Your task to perform on an android device: Open notification settings Image 0: 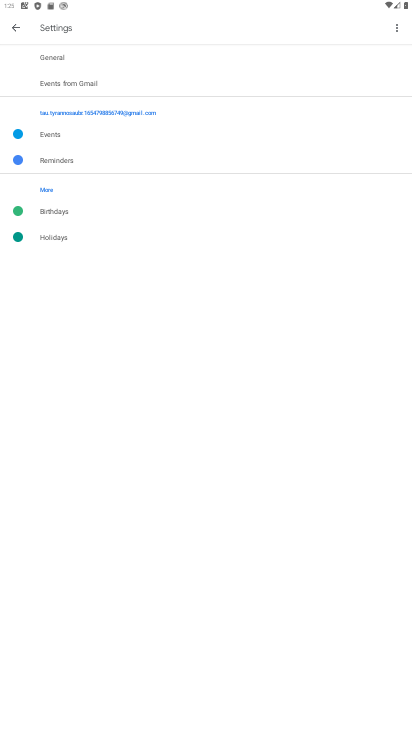
Step 0: press home button
Your task to perform on an android device: Open notification settings Image 1: 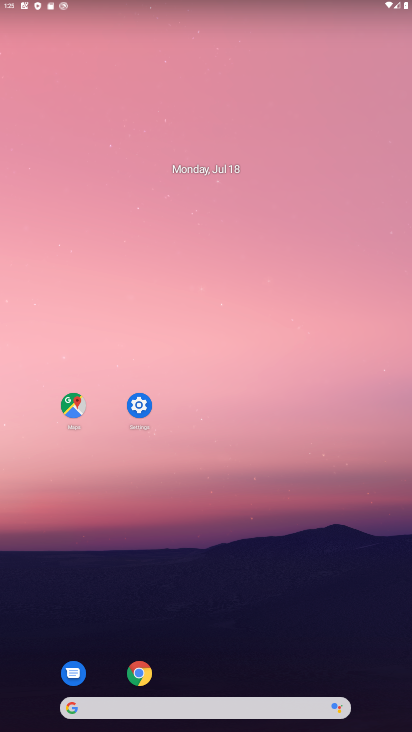
Step 1: click (148, 410)
Your task to perform on an android device: Open notification settings Image 2: 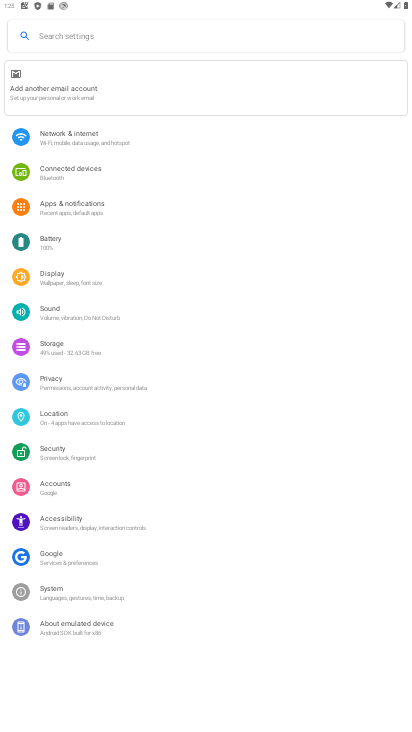
Step 2: click (79, 203)
Your task to perform on an android device: Open notification settings Image 3: 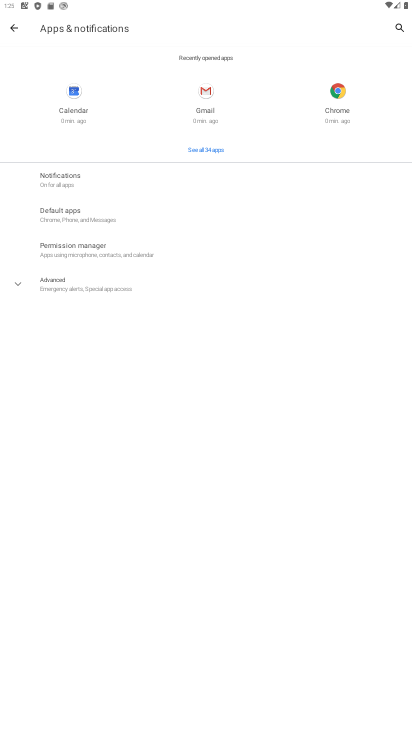
Step 3: click (59, 175)
Your task to perform on an android device: Open notification settings Image 4: 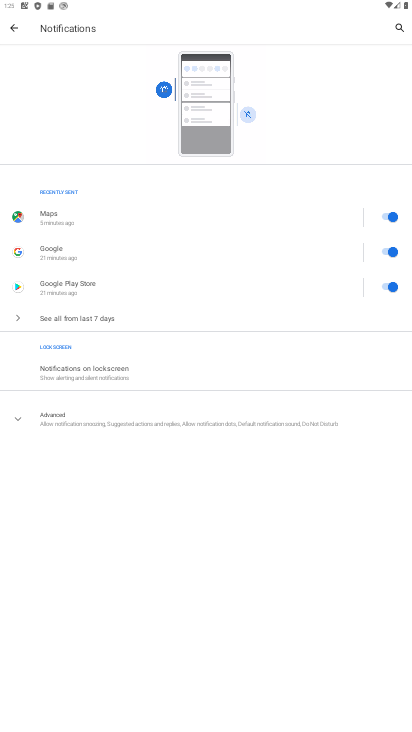
Step 4: click (18, 412)
Your task to perform on an android device: Open notification settings Image 5: 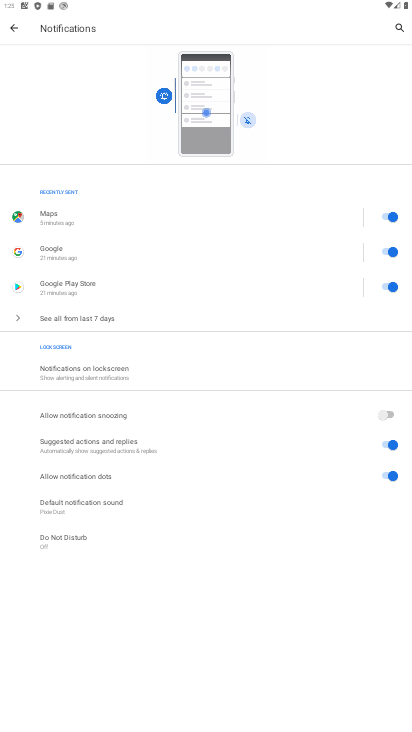
Step 5: task complete